Your task to perform on an android device: turn pop-ups on in chrome Image 0: 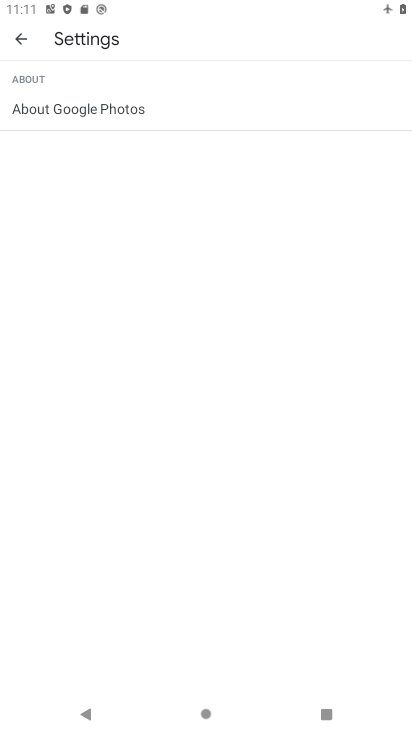
Step 0: press home button
Your task to perform on an android device: turn pop-ups on in chrome Image 1: 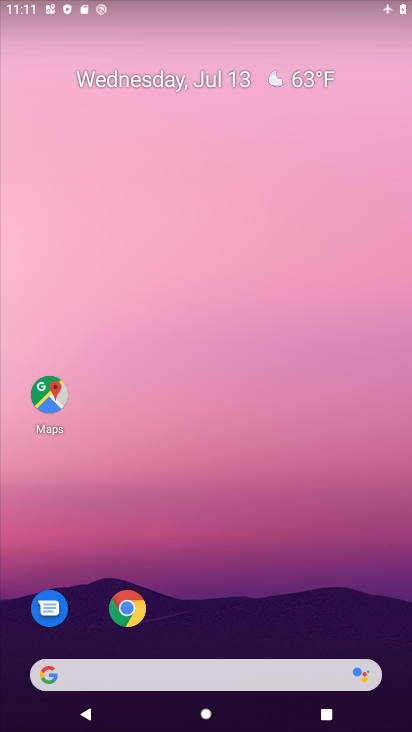
Step 1: press home button
Your task to perform on an android device: turn pop-ups on in chrome Image 2: 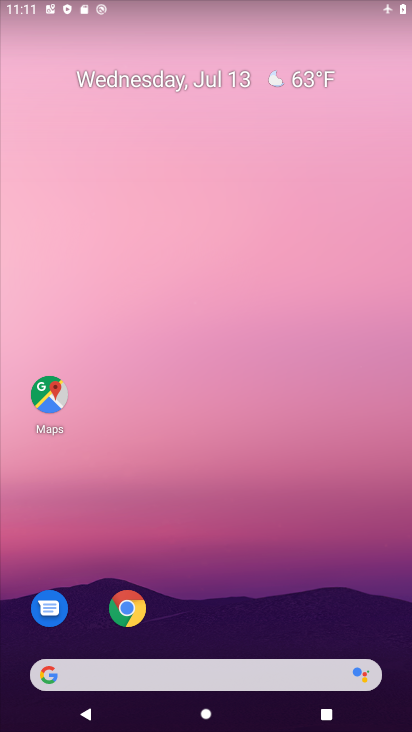
Step 2: click (133, 617)
Your task to perform on an android device: turn pop-ups on in chrome Image 3: 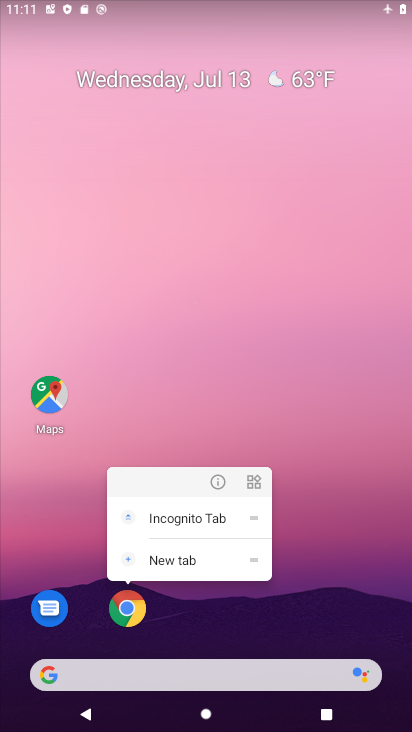
Step 3: click (132, 616)
Your task to perform on an android device: turn pop-ups on in chrome Image 4: 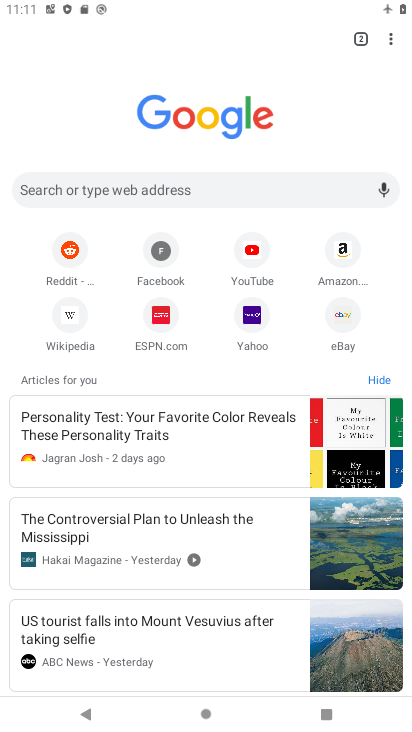
Step 4: drag from (388, 41) to (263, 333)
Your task to perform on an android device: turn pop-ups on in chrome Image 5: 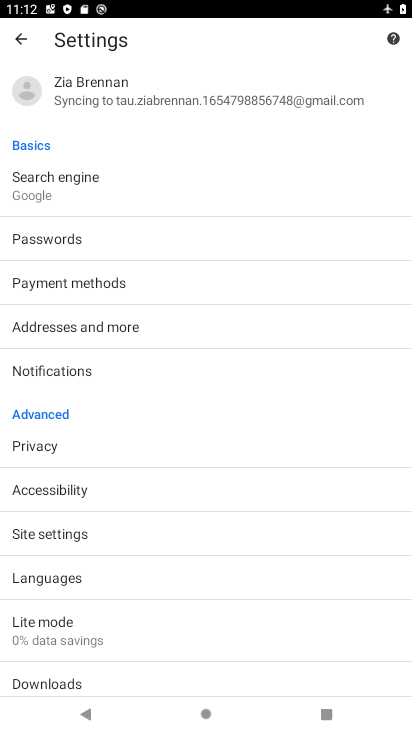
Step 5: drag from (234, 410) to (241, 74)
Your task to perform on an android device: turn pop-ups on in chrome Image 6: 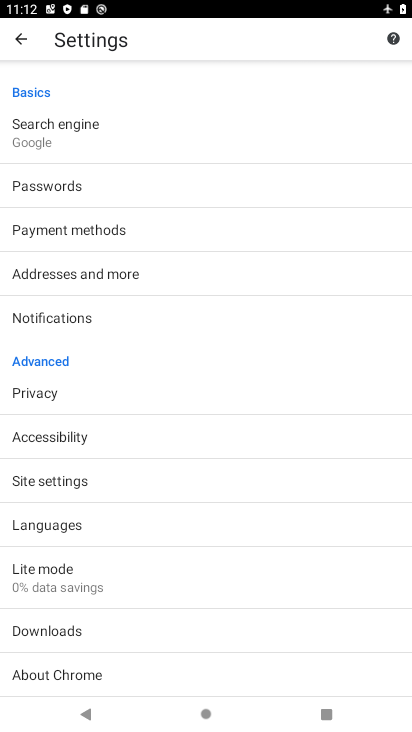
Step 6: click (74, 474)
Your task to perform on an android device: turn pop-ups on in chrome Image 7: 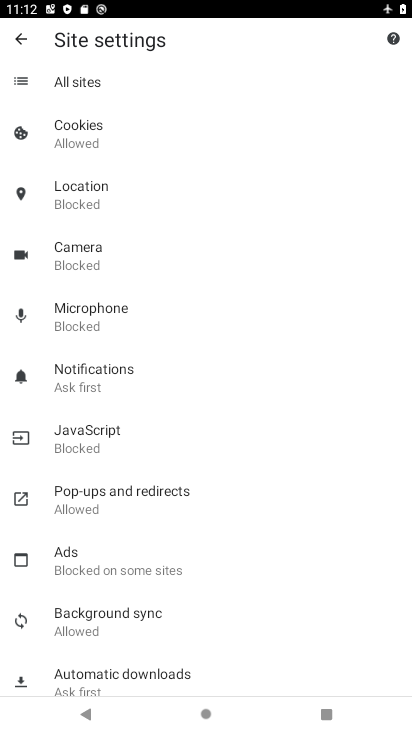
Step 7: click (146, 492)
Your task to perform on an android device: turn pop-ups on in chrome Image 8: 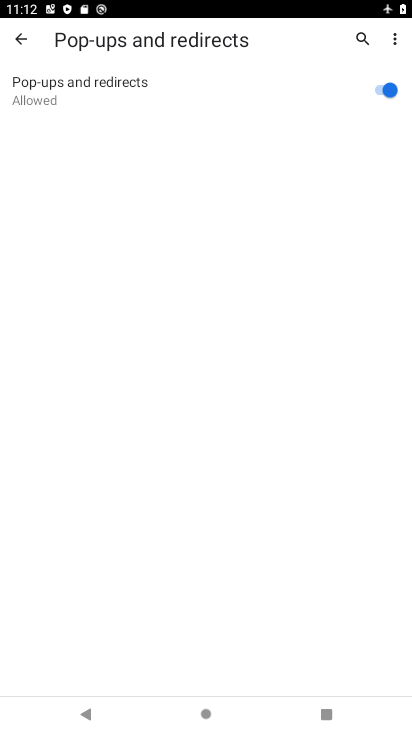
Step 8: task complete